Your task to perform on an android device: Open maps Image 0: 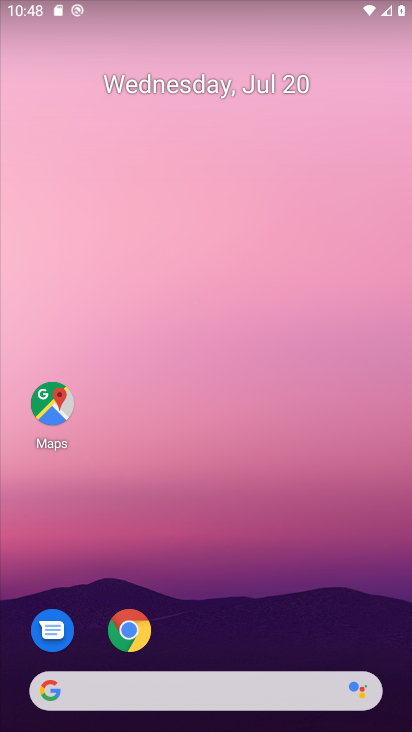
Step 0: drag from (240, 646) to (179, 261)
Your task to perform on an android device: Open maps Image 1: 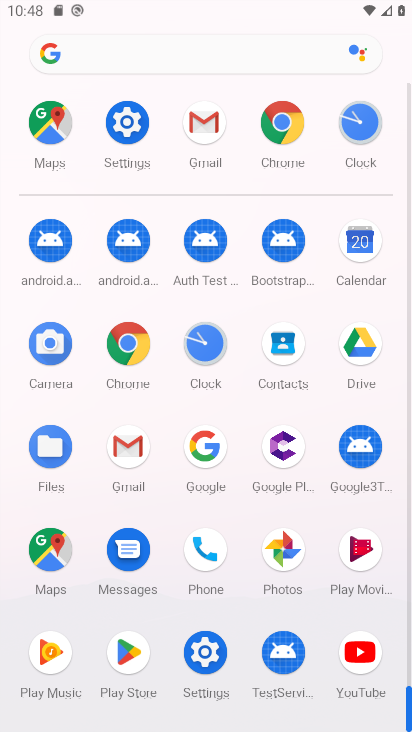
Step 1: click (48, 126)
Your task to perform on an android device: Open maps Image 2: 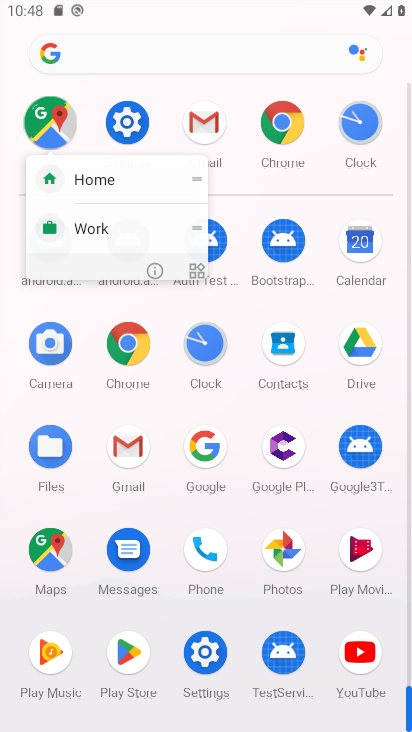
Step 2: click (48, 127)
Your task to perform on an android device: Open maps Image 3: 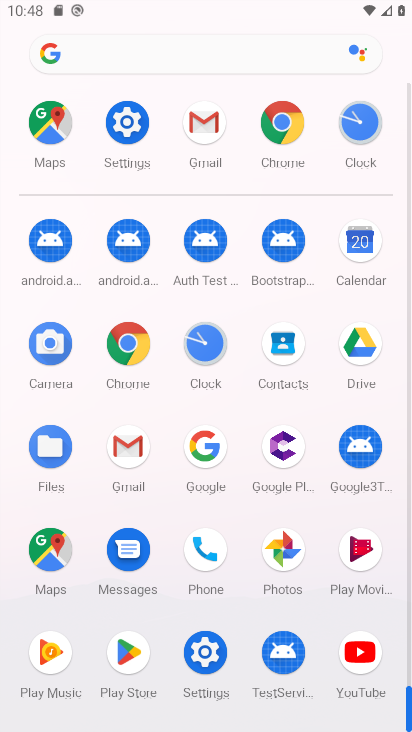
Step 3: click (48, 128)
Your task to perform on an android device: Open maps Image 4: 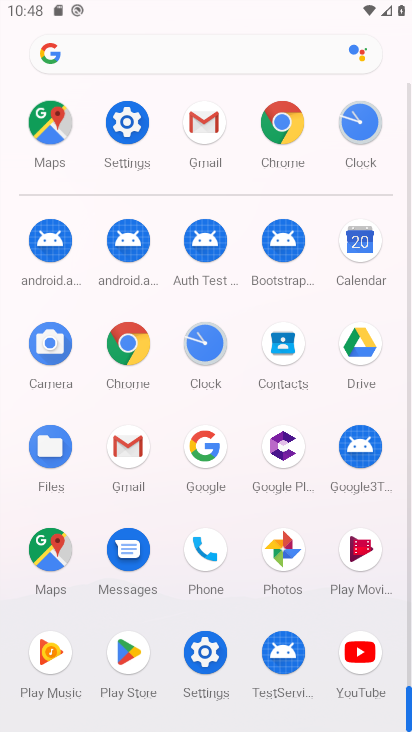
Step 4: click (48, 128)
Your task to perform on an android device: Open maps Image 5: 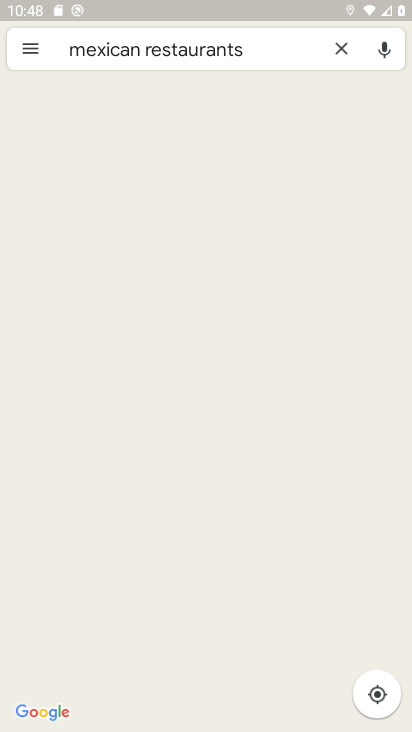
Step 5: task complete